Your task to perform on an android device: Go to Reddit.com Image 0: 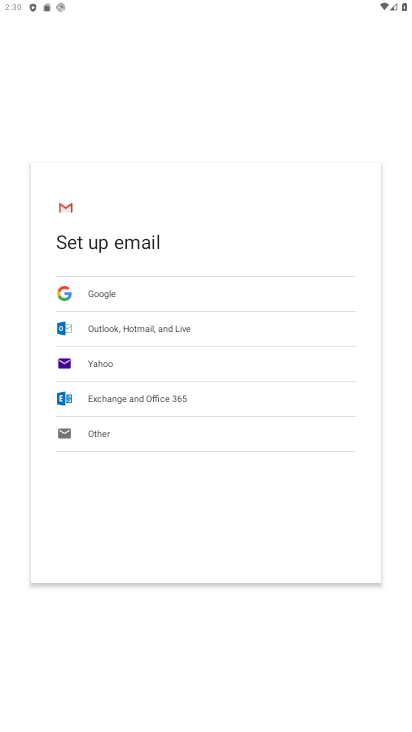
Step 0: press home button
Your task to perform on an android device: Go to Reddit.com Image 1: 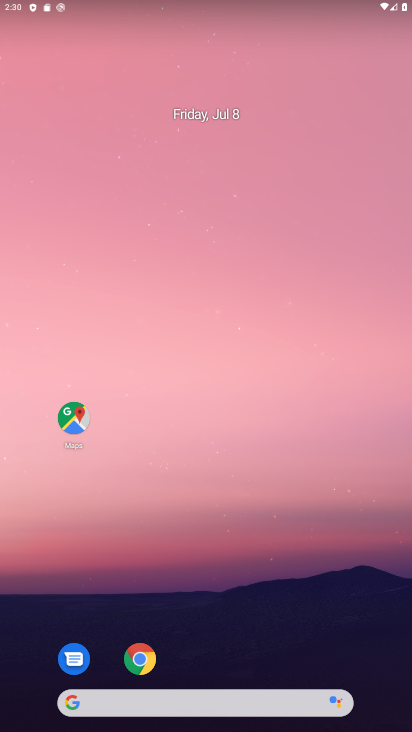
Step 1: click (139, 658)
Your task to perform on an android device: Go to Reddit.com Image 2: 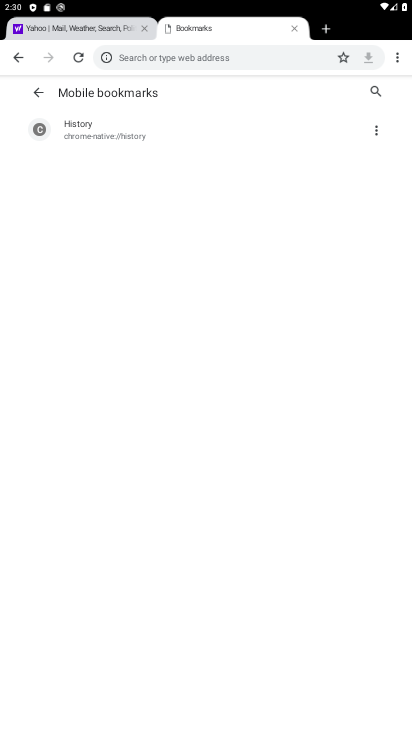
Step 2: click (319, 24)
Your task to perform on an android device: Go to Reddit.com Image 3: 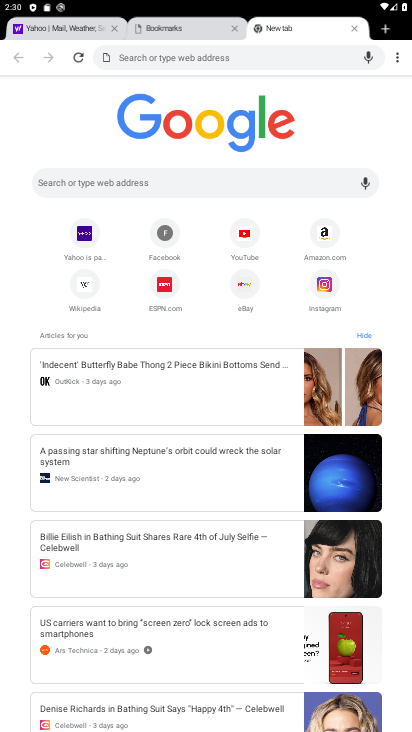
Step 3: click (138, 174)
Your task to perform on an android device: Go to Reddit.com Image 4: 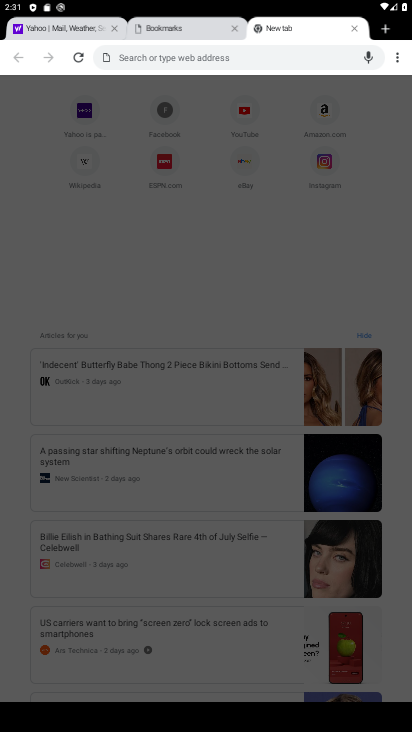
Step 4: type "reddit.com"
Your task to perform on an android device: Go to Reddit.com Image 5: 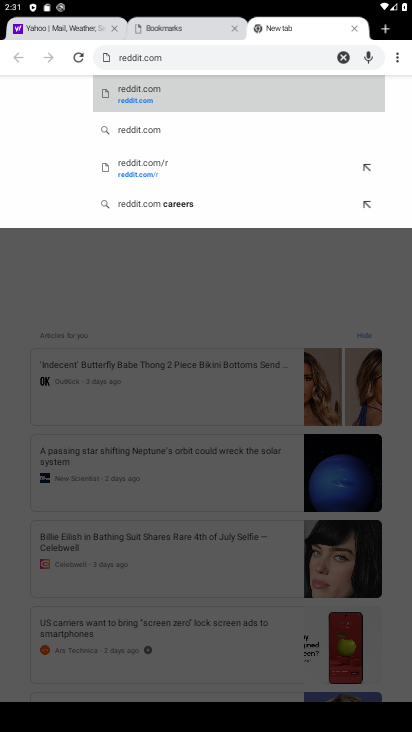
Step 5: click (172, 91)
Your task to perform on an android device: Go to Reddit.com Image 6: 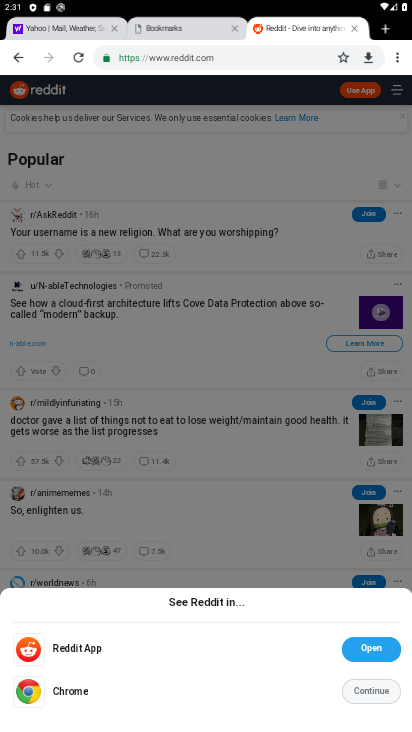
Step 6: click (367, 688)
Your task to perform on an android device: Go to Reddit.com Image 7: 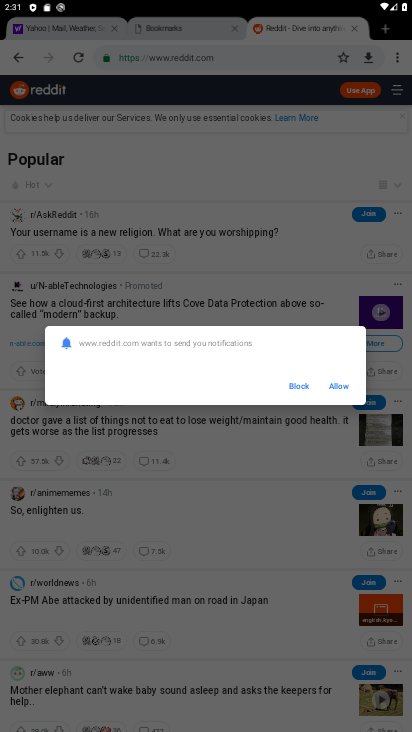
Step 7: click (296, 388)
Your task to perform on an android device: Go to Reddit.com Image 8: 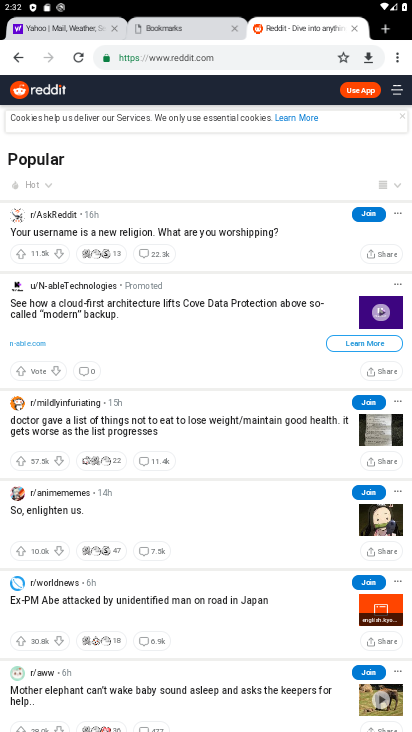
Step 8: task complete